Your task to perform on an android device: delete location history Image 0: 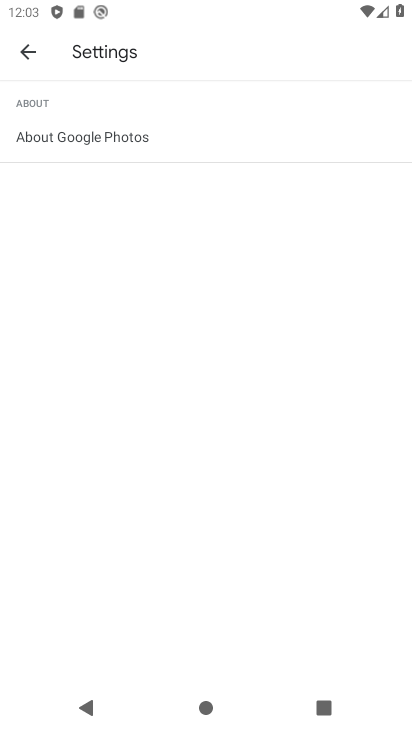
Step 0: press home button
Your task to perform on an android device: delete location history Image 1: 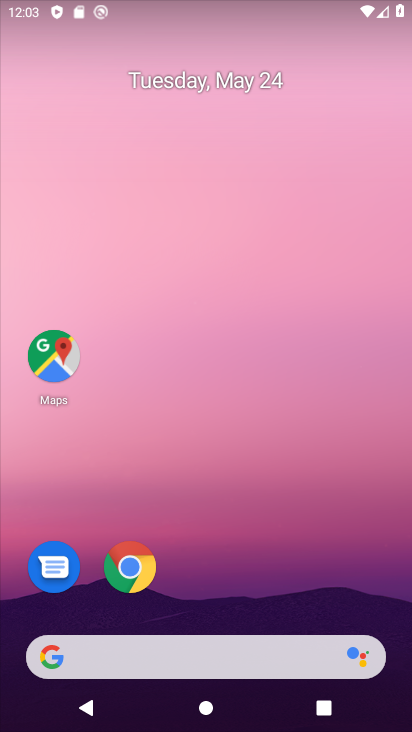
Step 1: drag from (278, 598) to (187, 122)
Your task to perform on an android device: delete location history Image 2: 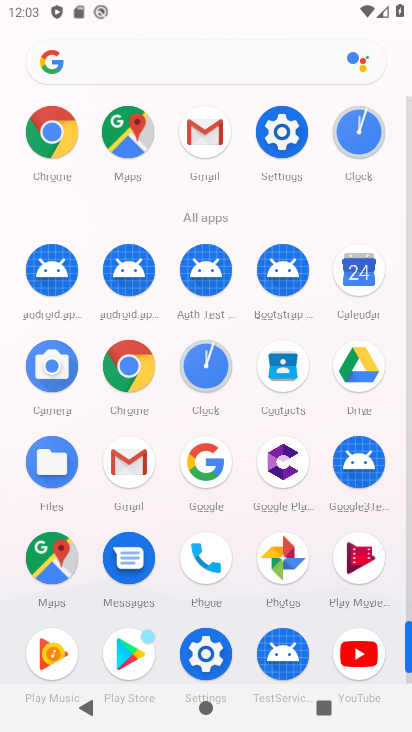
Step 2: click (52, 554)
Your task to perform on an android device: delete location history Image 3: 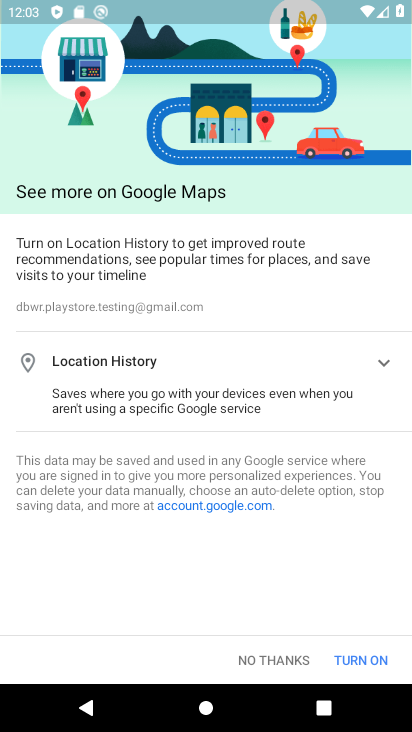
Step 3: click (286, 658)
Your task to perform on an android device: delete location history Image 4: 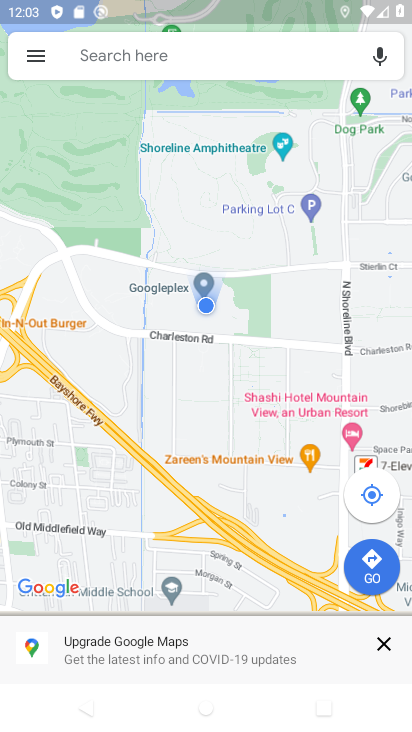
Step 4: click (32, 64)
Your task to perform on an android device: delete location history Image 5: 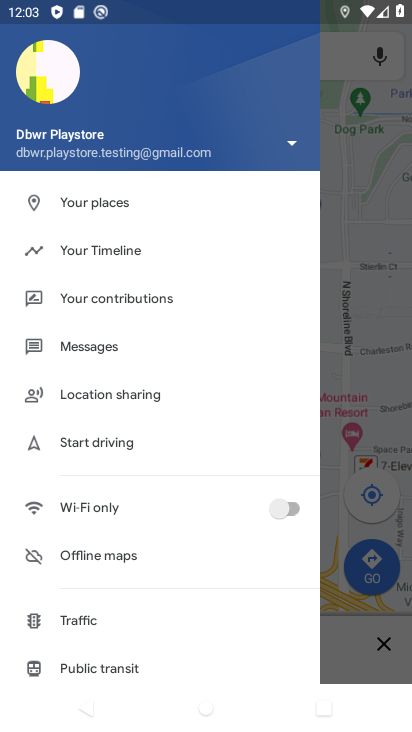
Step 5: click (79, 258)
Your task to perform on an android device: delete location history Image 6: 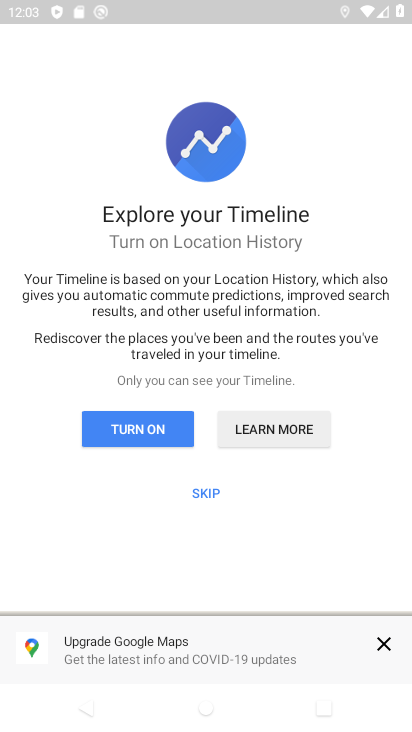
Step 6: click (218, 490)
Your task to perform on an android device: delete location history Image 7: 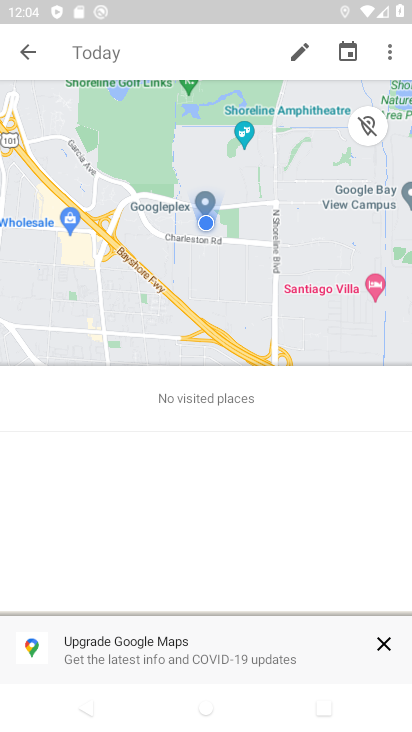
Step 7: click (387, 59)
Your task to perform on an android device: delete location history Image 8: 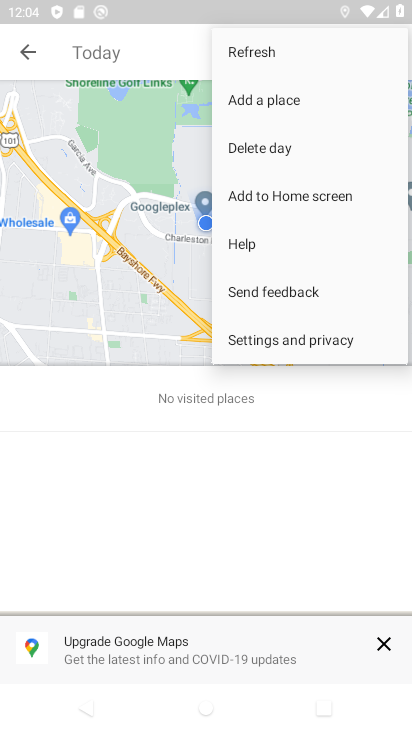
Step 8: click (283, 348)
Your task to perform on an android device: delete location history Image 9: 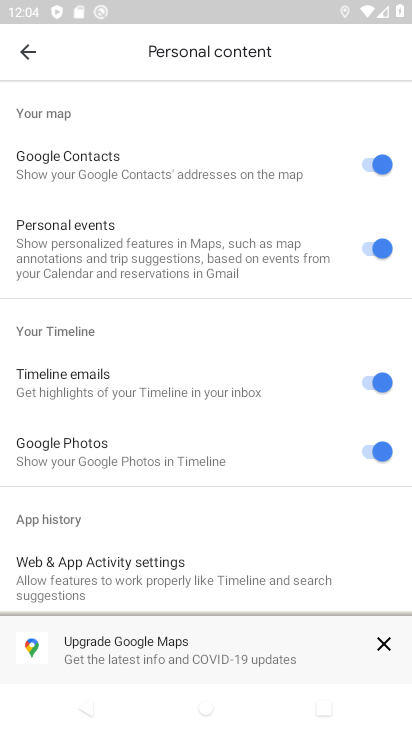
Step 9: drag from (260, 579) to (160, 217)
Your task to perform on an android device: delete location history Image 10: 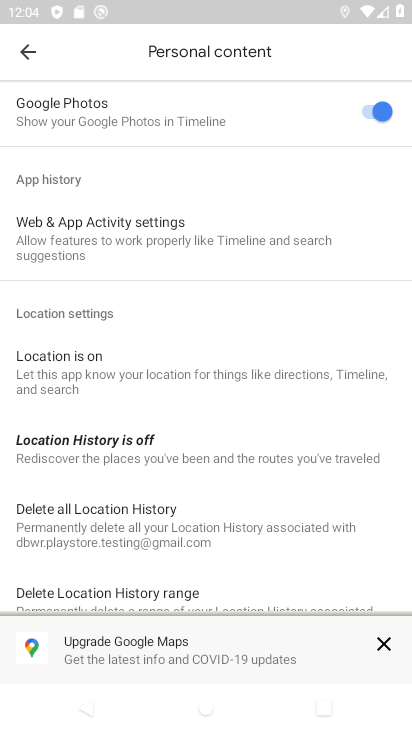
Step 10: click (212, 509)
Your task to perform on an android device: delete location history Image 11: 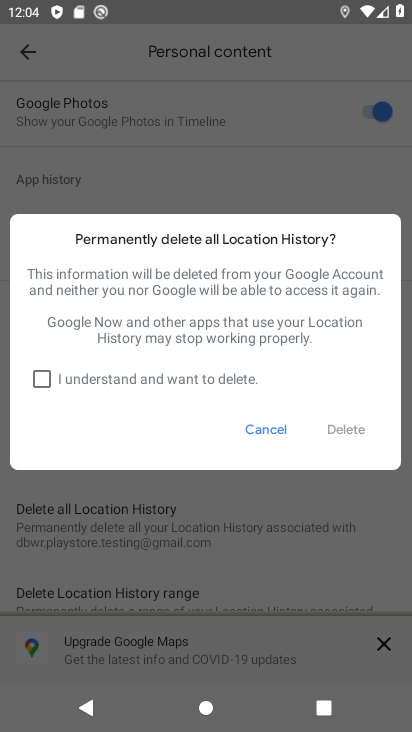
Step 11: click (194, 386)
Your task to perform on an android device: delete location history Image 12: 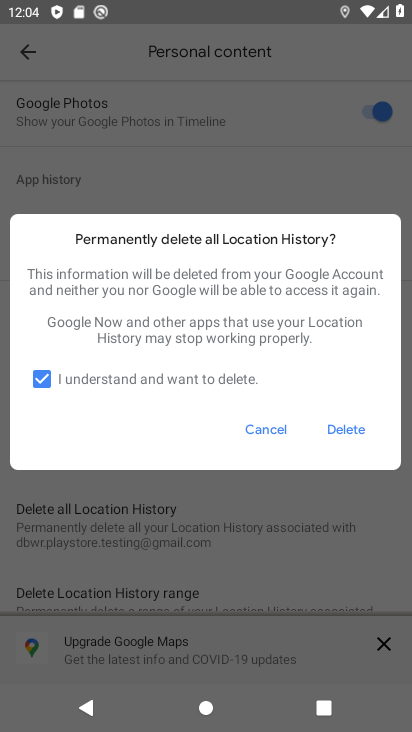
Step 12: click (346, 431)
Your task to perform on an android device: delete location history Image 13: 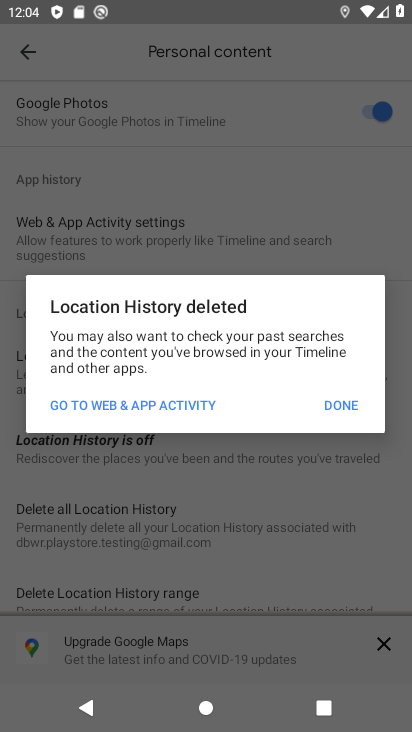
Step 13: click (341, 402)
Your task to perform on an android device: delete location history Image 14: 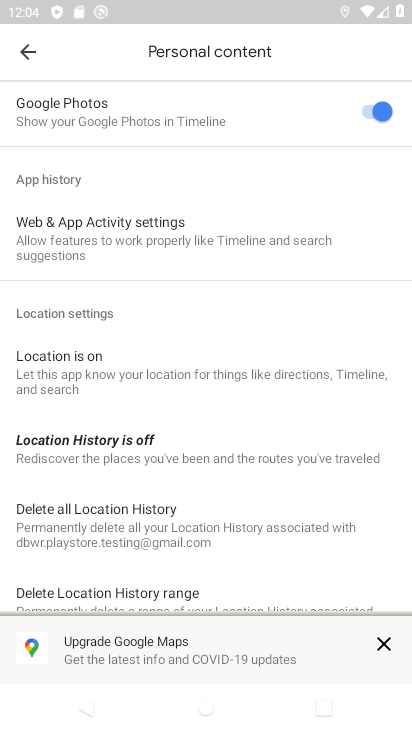
Step 14: task complete